Your task to perform on an android device: Open calendar and show me the second week of next month Image 0: 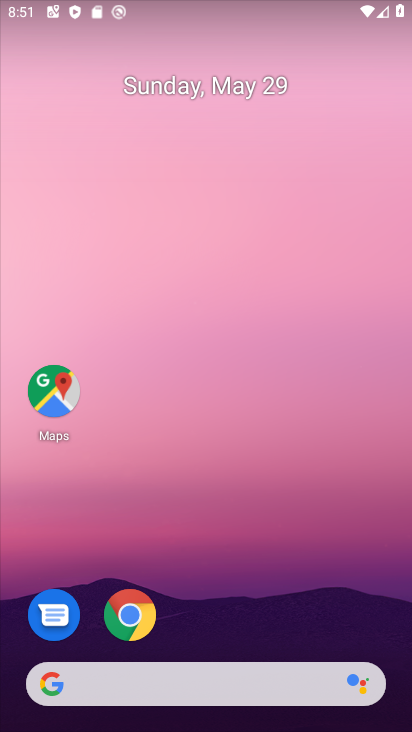
Step 0: drag from (205, 607) to (233, 92)
Your task to perform on an android device: Open calendar and show me the second week of next month Image 1: 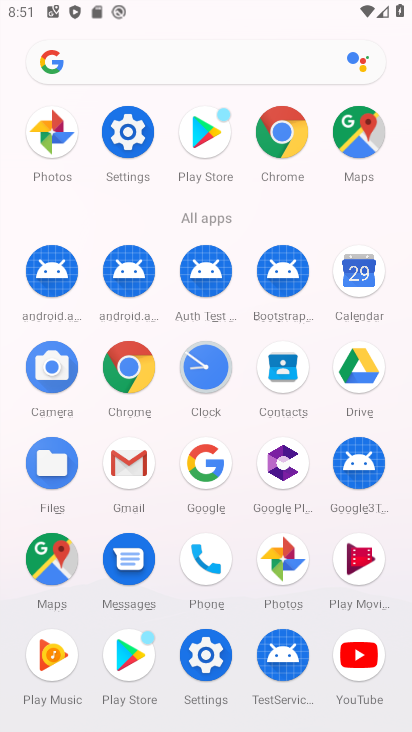
Step 1: click (350, 274)
Your task to perform on an android device: Open calendar and show me the second week of next month Image 2: 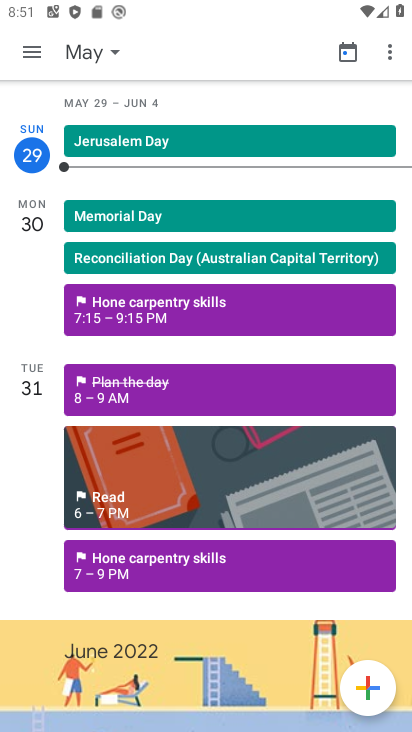
Step 2: click (98, 55)
Your task to perform on an android device: Open calendar and show me the second week of next month Image 3: 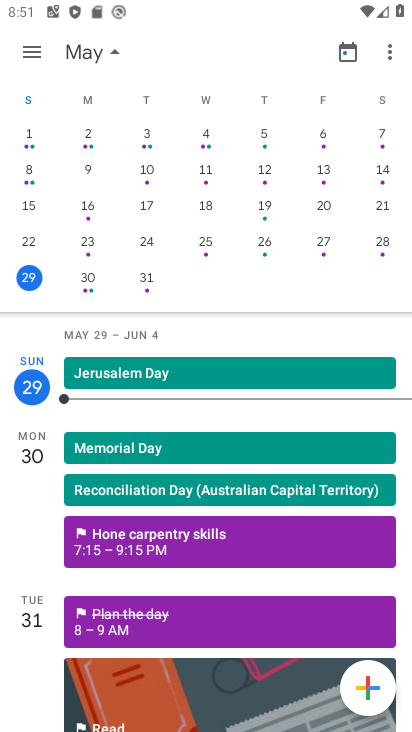
Step 3: drag from (373, 261) to (0, 250)
Your task to perform on an android device: Open calendar and show me the second week of next month Image 4: 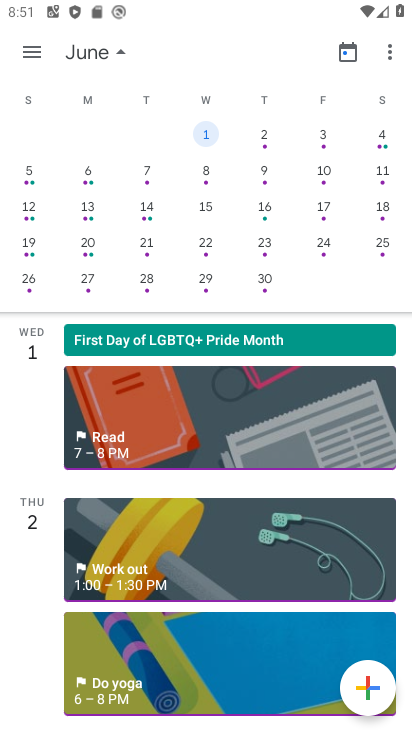
Step 4: click (39, 179)
Your task to perform on an android device: Open calendar and show me the second week of next month Image 5: 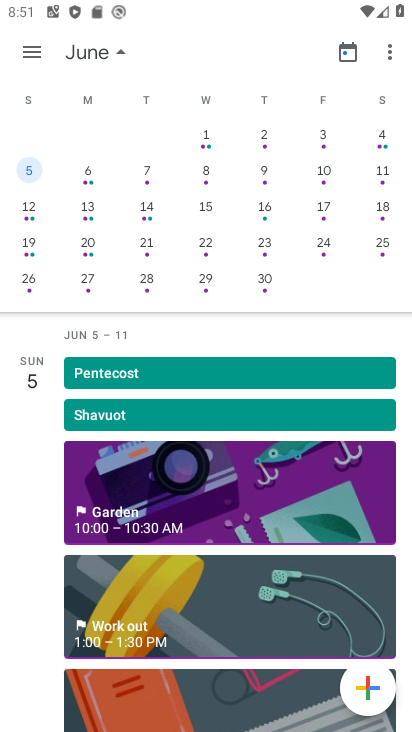
Step 5: task complete